Your task to perform on an android device: Open the calendar and show me this week's events Image 0: 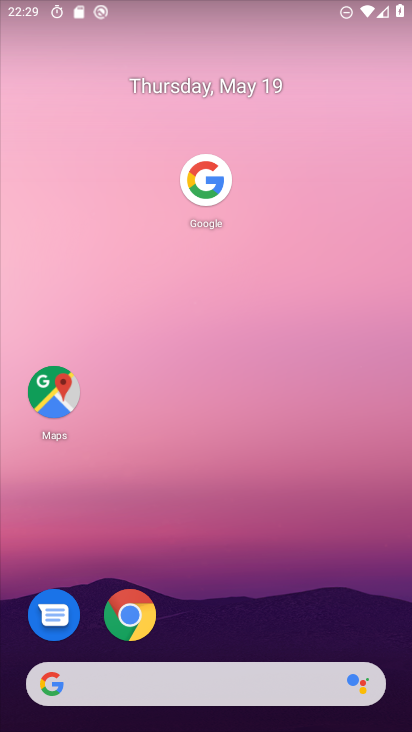
Step 0: drag from (239, 608) to (249, 60)
Your task to perform on an android device: Open the calendar and show me this week's events Image 1: 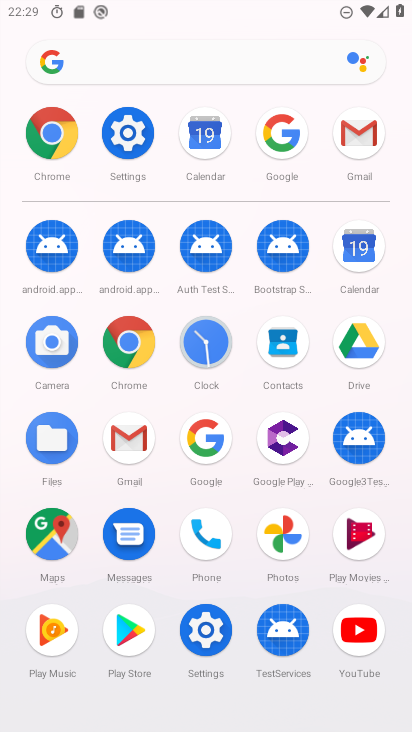
Step 1: click (359, 242)
Your task to perform on an android device: Open the calendar and show me this week's events Image 2: 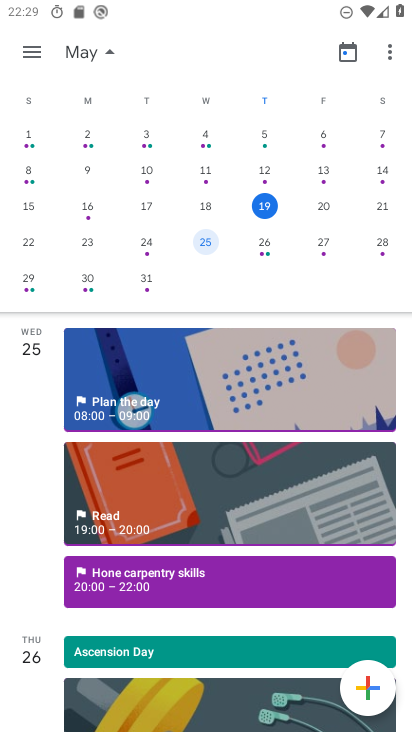
Step 2: click (323, 209)
Your task to perform on an android device: Open the calendar and show me this week's events Image 3: 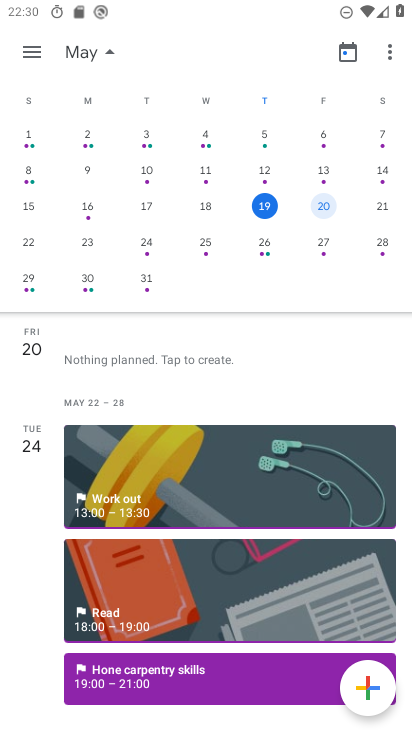
Step 3: task complete